Your task to perform on an android device: Open calendar and show me the fourth week of next month Image 0: 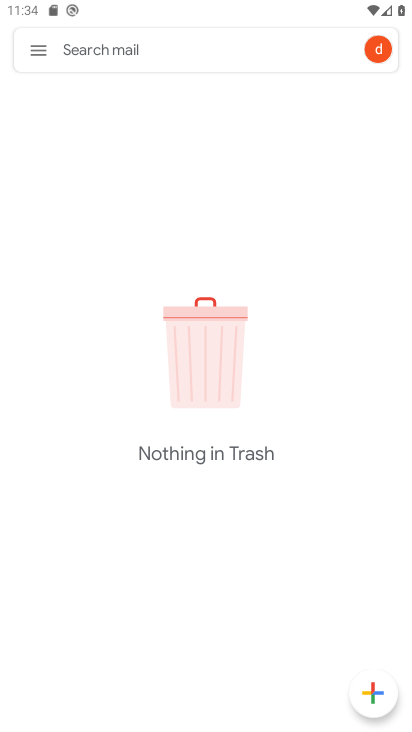
Step 0: press home button
Your task to perform on an android device: Open calendar and show me the fourth week of next month Image 1: 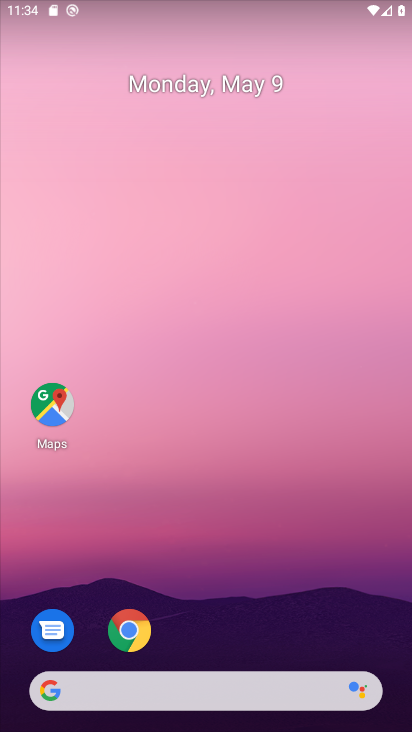
Step 1: drag from (212, 625) to (76, 141)
Your task to perform on an android device: Open calendar and show me the fourth week of next month Image 2: 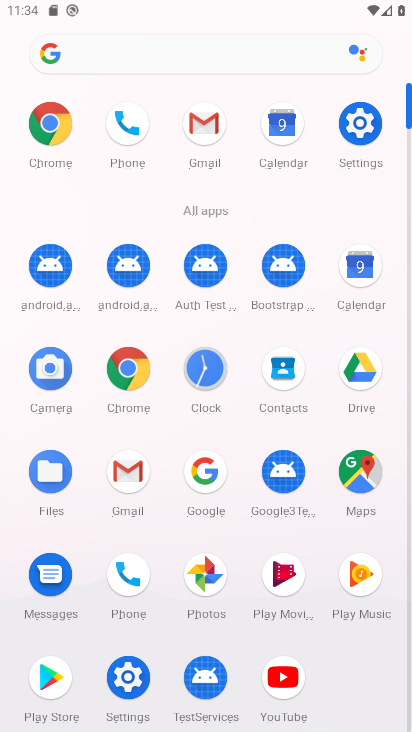
Step 2: click (287, 118)
Your task to perform on an android device: Open calendar and show me the fourth week of next month Image 3: 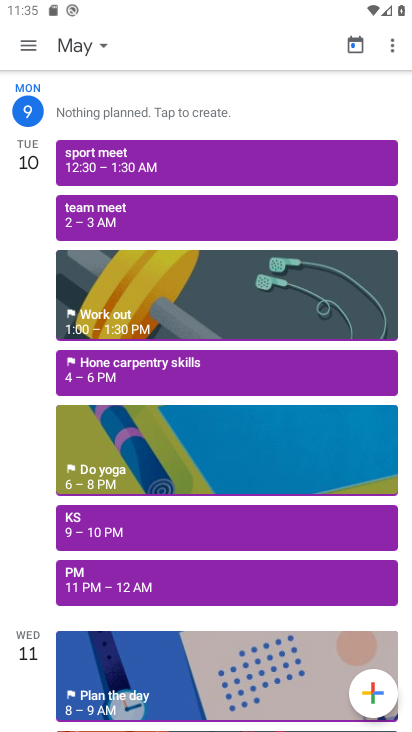
Step 3: click (27, 39)
Your task to perform on an android device: Open calendar and show me the fourth week of next month Image 4: 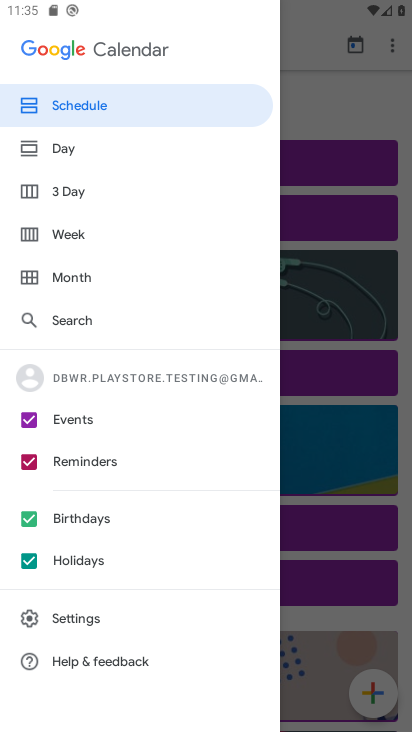
Step 4: click (78, 277)
Your task to perform on an android device: Open calendar and show me the fourth week of next month Image 5: 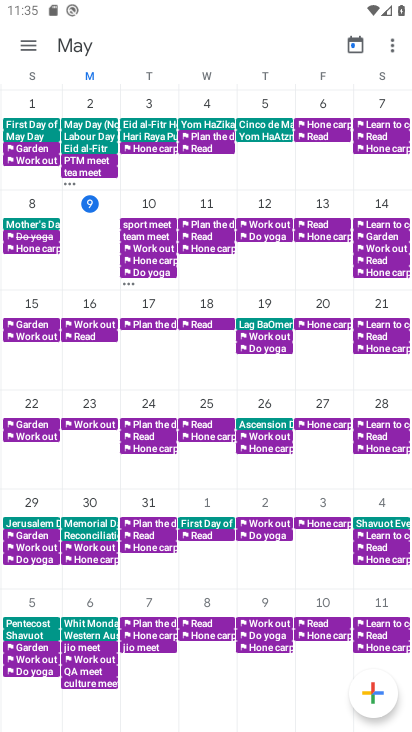
Step 5: drag from (378, 386) to (18, 359)
Your task to perform on an android device: Open calendar and show me the fourth week of next month Image 6: 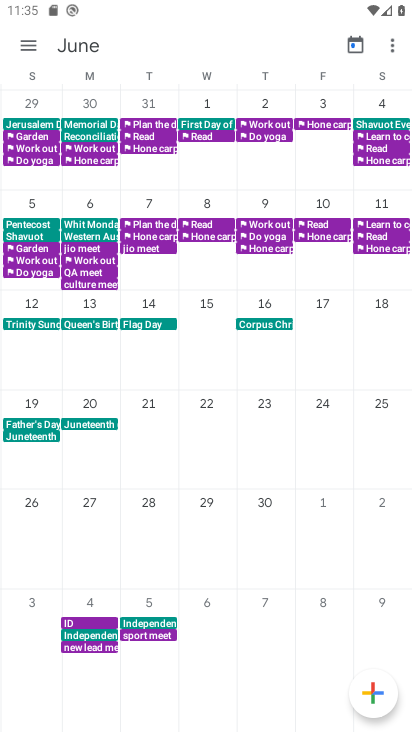
Step 6: click (29, 402)
Your task to perform on an android device: Open calendar and show me the fourth week of next month Image 7: 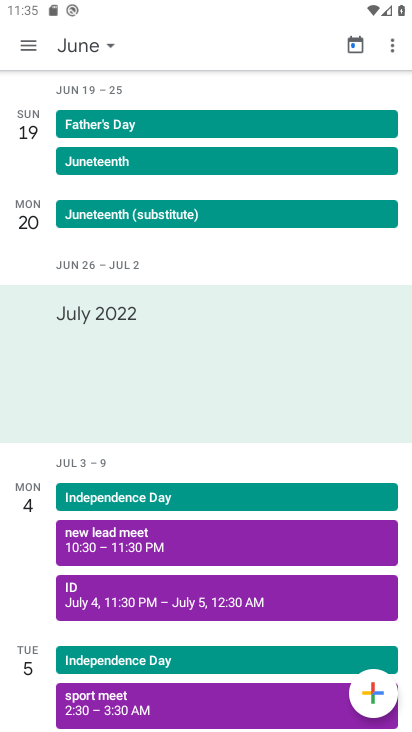
Step 7: click (29, 45)
Your task to perform on an android device: Open calendar and show me the fourth week of next month Image 8: 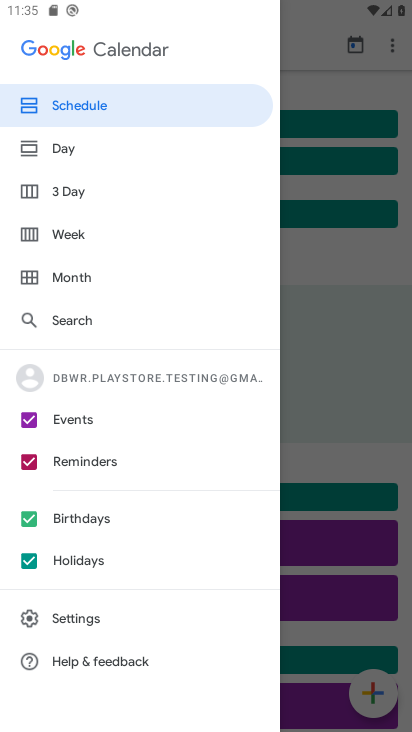
Step 8: click (67, 233)
Your task to perform on an android device: Open calendar and show me the fourth week of next month Image 9: 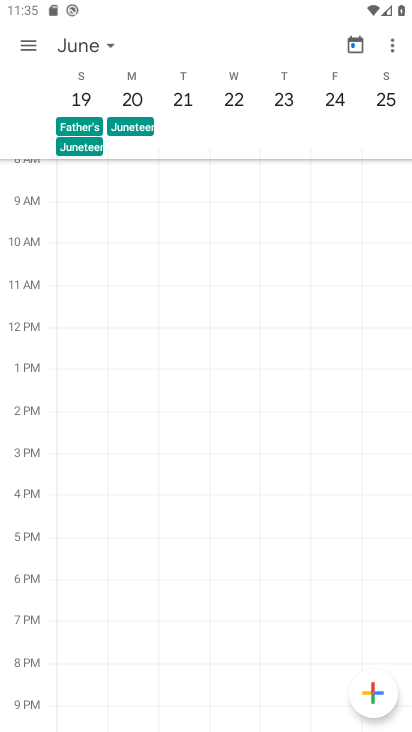
Step 9: task complete